Your task to perform on an android device: View the shopping cart on walmart.com. Search for macbook pro 13 inch on walmart.com, select the first entry, add it to the cart, then select checkout. Image 0: 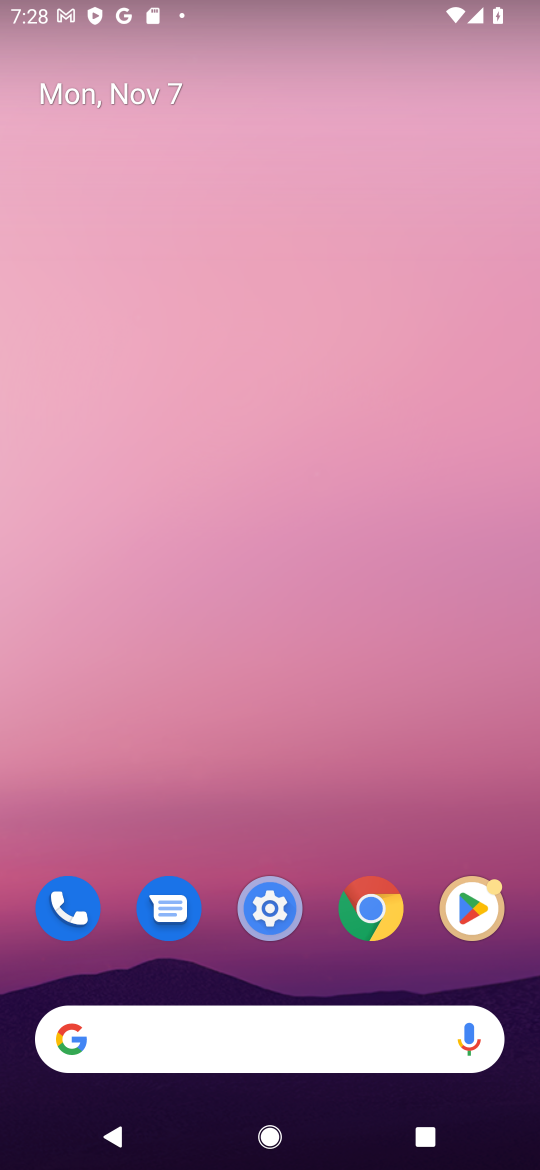
Step 0: click (315, 1014)
Your task to perform on an android device: View the shopping cart on walmart.com. Search for macbook pro 13 inch on walmart.com, select the first entry, add it to the cart, then select checkout. Image 1: 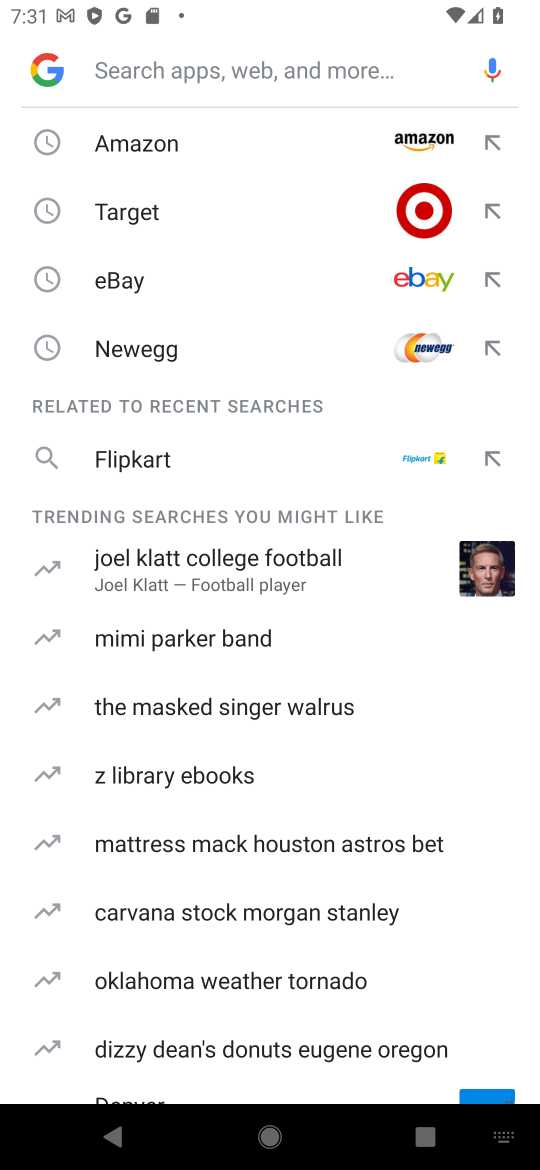
Step 1: click (369, 459)
Your task to perform on an android device: View the shopping cart on walmart.com. Search for macbook pro 13 inch on walmart.com, select the first entry, add it to the cart, then select checkout. Image 2: 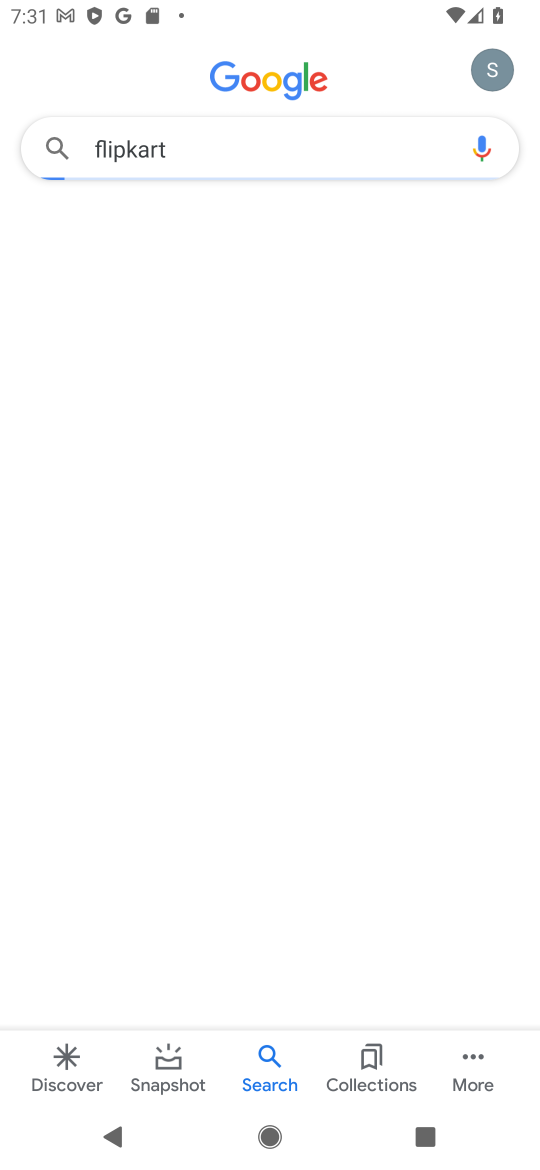
Step 2: task complete